Your task to perform on an android device: create a new album in the google photos Image 0: 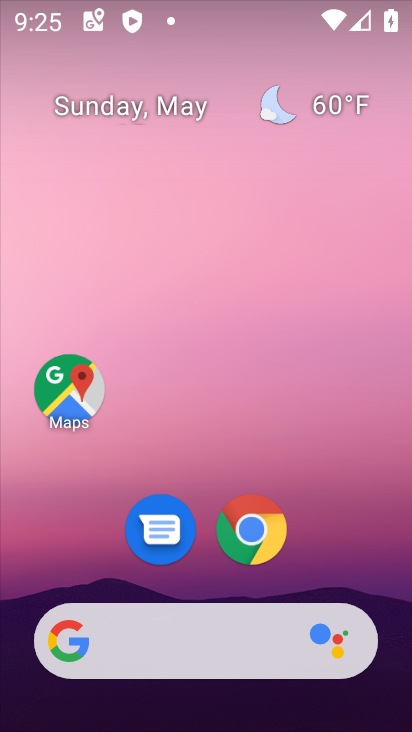
Step 0: drag from (371, 565) to (366, 114)
Your task to perform on an android device: create a new album in the google photos Image 1: 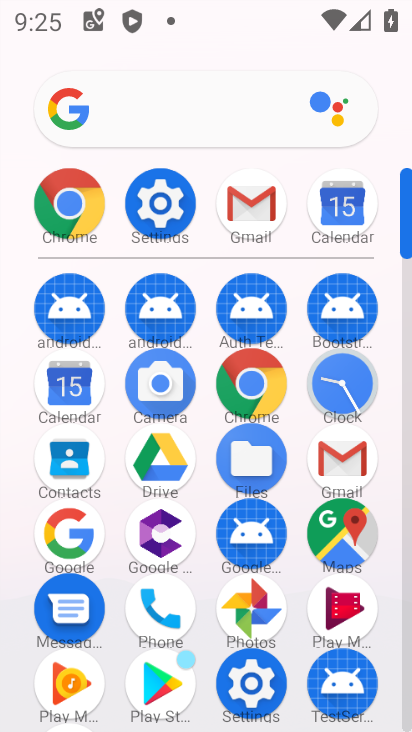
Step 1: click (263, 611)
Your task to perform on an android device: create a new album in the google photos Image 2: 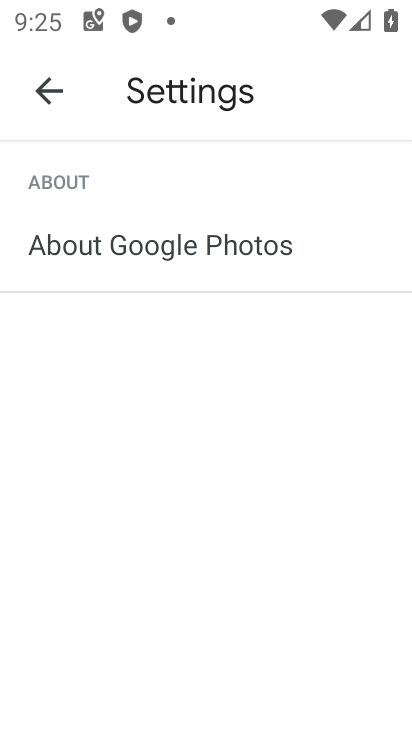
Step 2: click (33, 95)
Your task to perform on an android device: create a new album in the google photos Image 3: 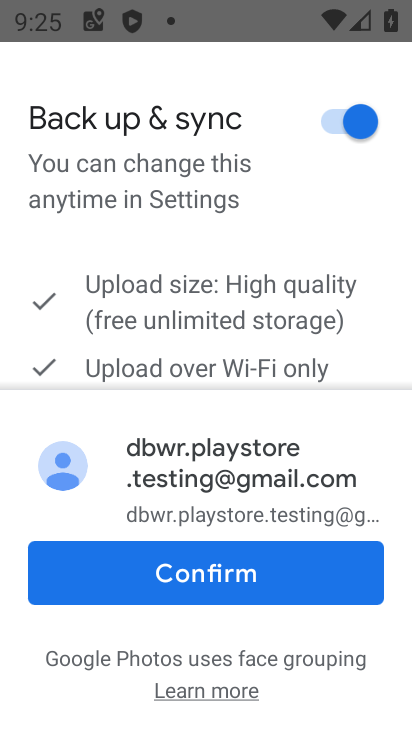
Step 3: click (253, 580)
Your task to perform on an android device: create a new album in the google photos Image 4: 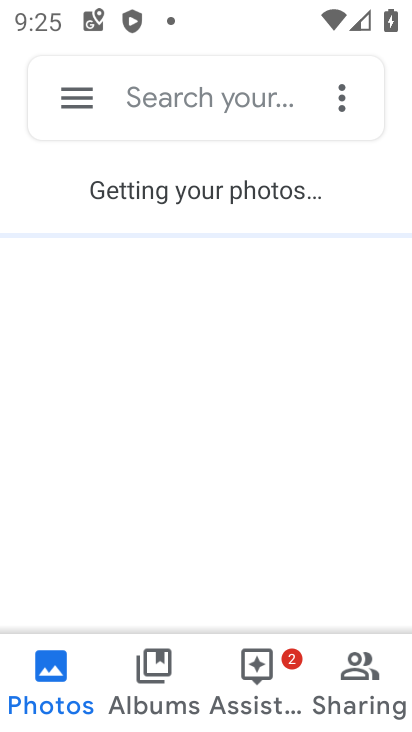
Step 4: click (160, 677)
Your task to perform on an android device: create a new album in the google photos Image 5: 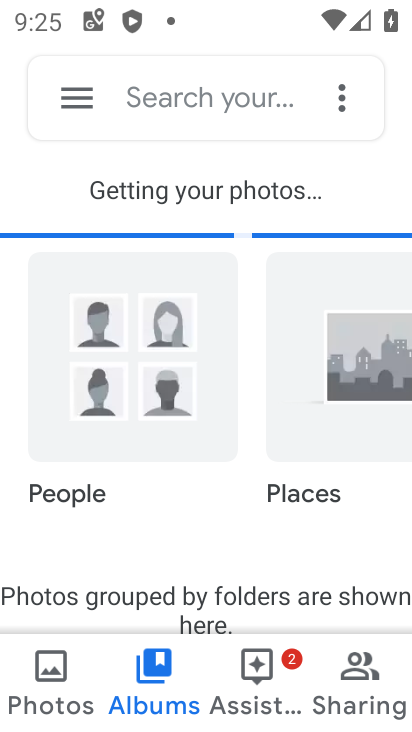
Step 5: click (344, 87)
Your task to perform on an android device: create a new album in the google photos Image 6: 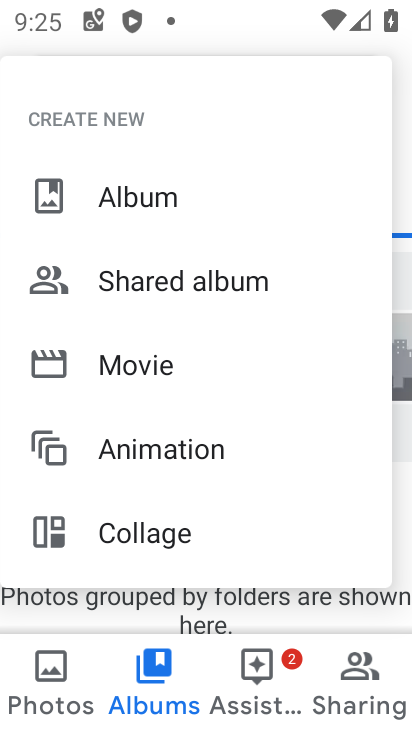
Step 6: click (120, 194)
Your task to perform on an android device: create a new album in the google photos Image 7: 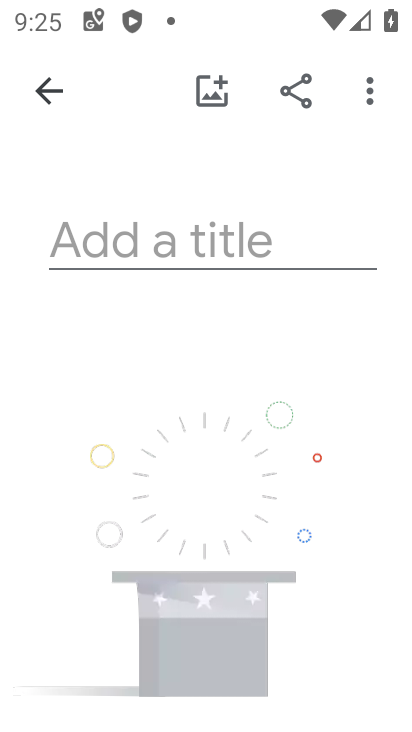
Step 7: click (168, 255)
Your task to perform on an android device: create a new album in the google photos Image 8: 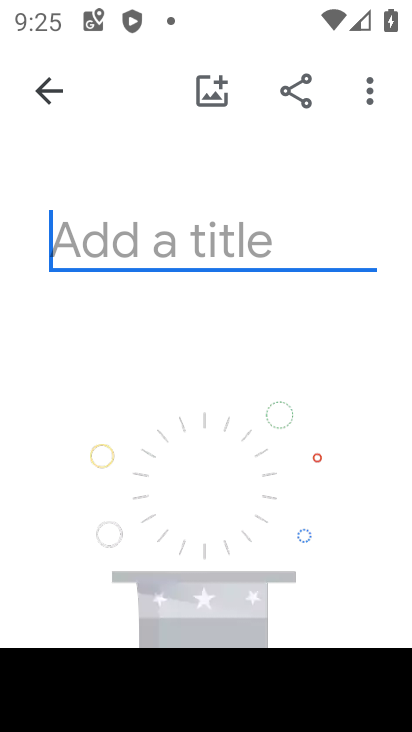
Step 8: type "gg"
Your task to perform on an android device: create a new album in the google photos Image 9: 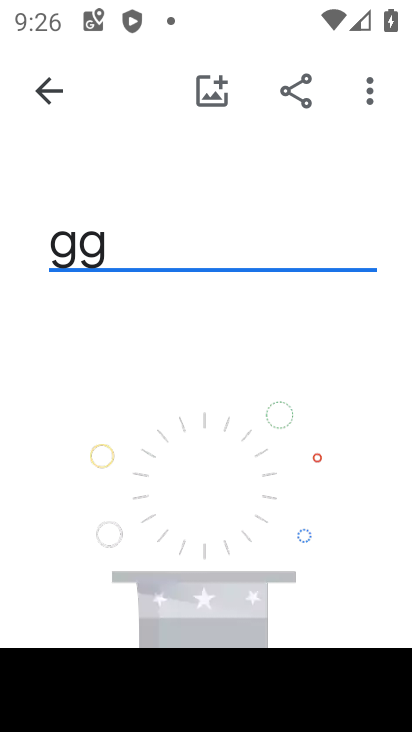
Step 9: drag from (345, 532) to (331, 251)
Your task to perform on an android device: create a new album in the google photos Image 10: 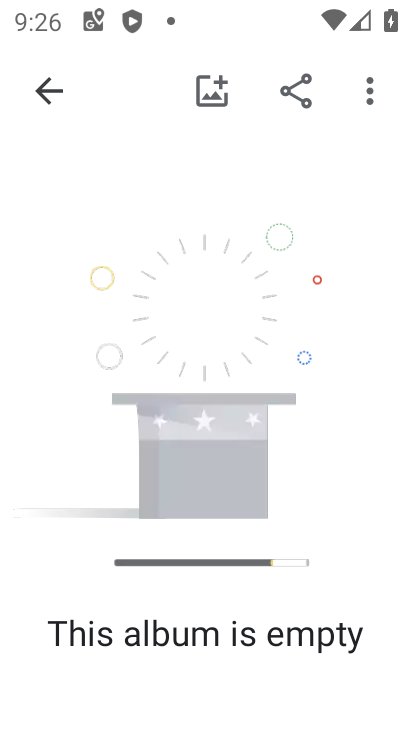
Step 10: click (195, 558)
Your task to perform on an android device: create a new album in the google photos Image 11: 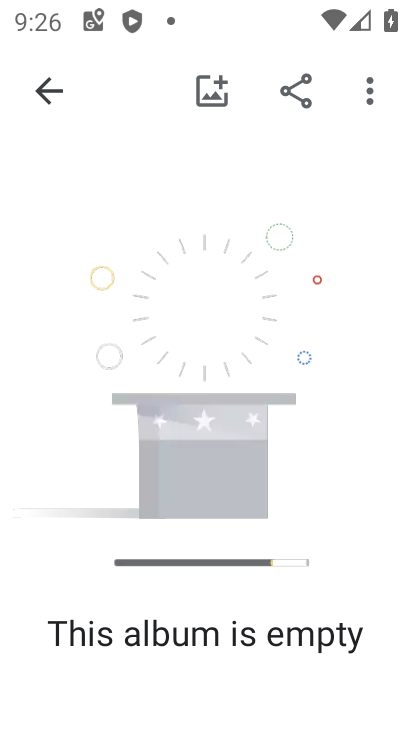
Step 11: click (232, 470)
Your task to perform on an android device: create a new album in the google photos Image 12: 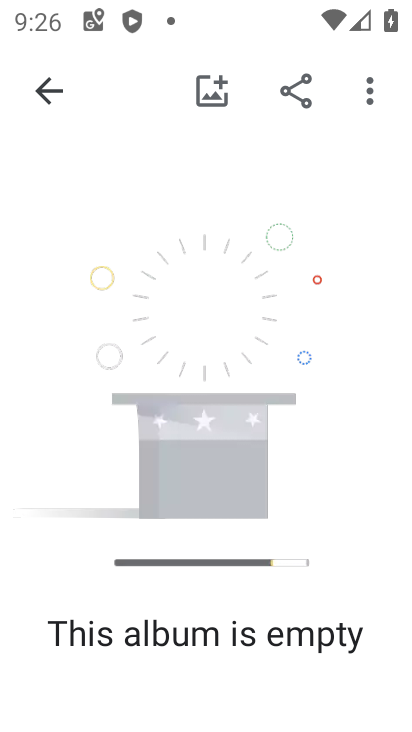
Step 12: click (43, 80)
Your task to perform on an android device: create a new album in the google photos Image 13: 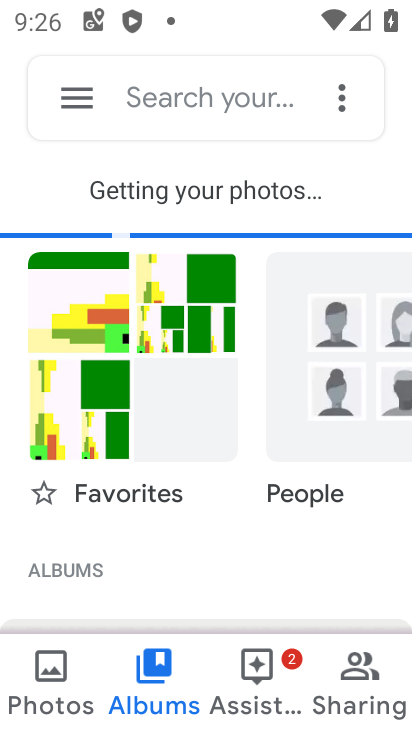
Step 13: drag from (200, 551) to (210, 215)
Your task to perform on an android device: create a new album in the google photos Image 14: 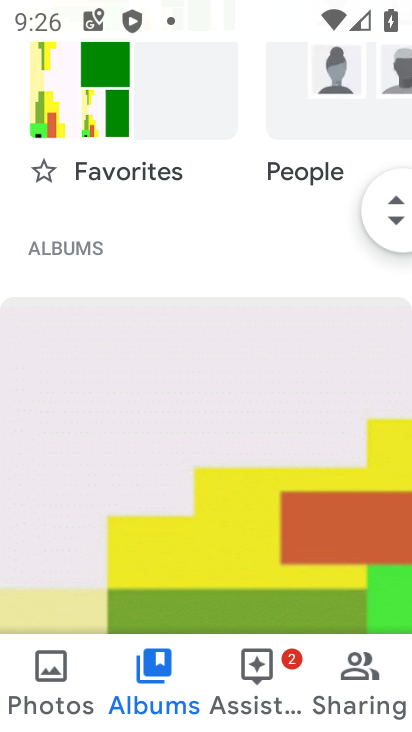
Step 14: drag from (171, 532) to (187, 245)
Your task to perform on an android device: create a new album in the google photos Image 15: 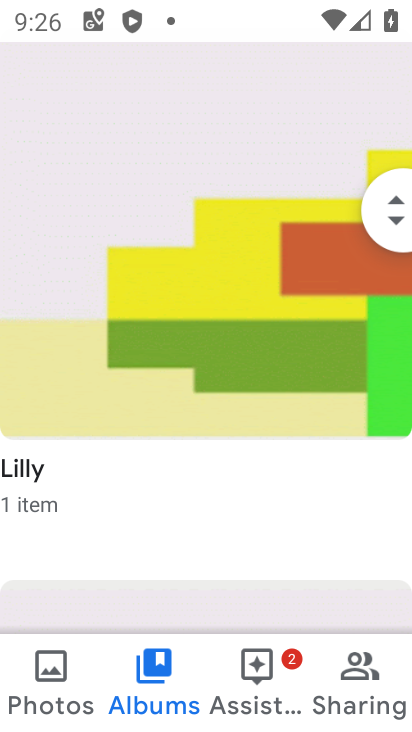
Step 15: drag from (184, 189) to (180, 506)
Your task to perform on an android device: create a new album in the google photos Image 16: 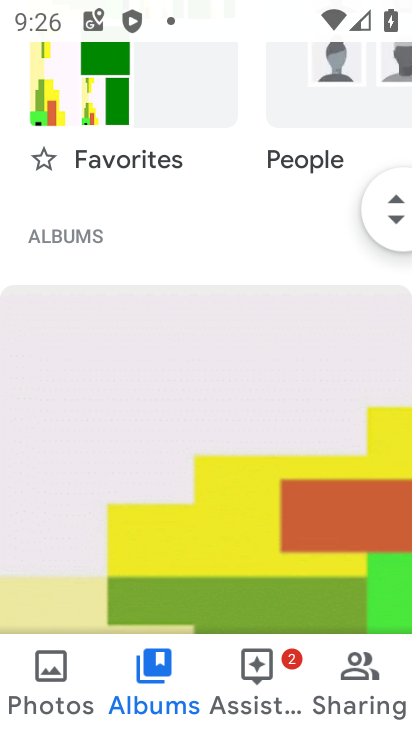
Step 16: drag from (203, 133) to (199, 466)
Your task to perform on an android device: create a new album in the google photos Image 17: 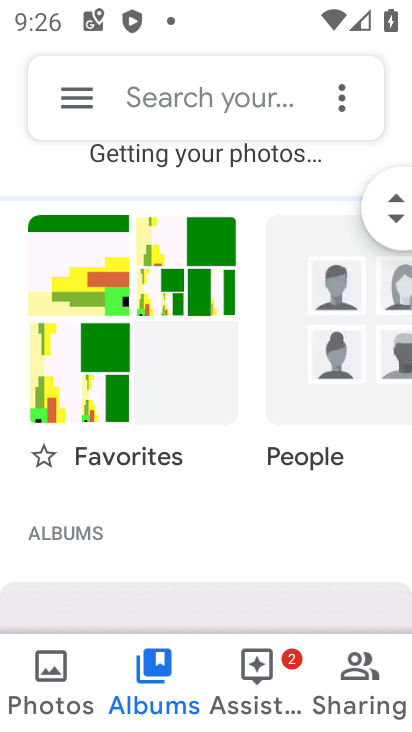
Step 17: click (342, 97)
Your task to perform on an android device: create a new album in the google photos Image 18: 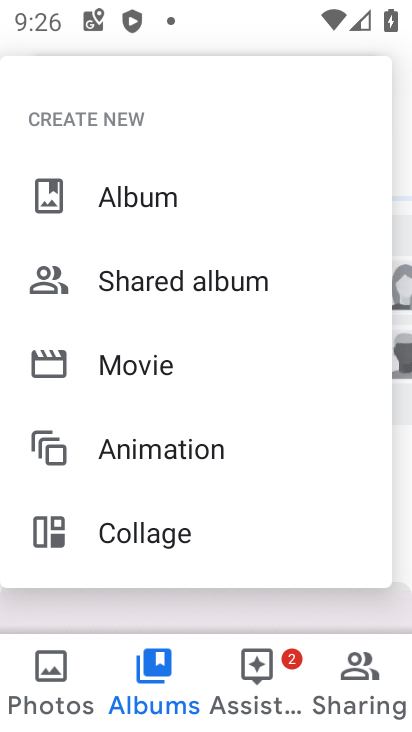
Step 18: click (146, 194)
Your task to perform on an android device: create a new album in the google photos Image 19: 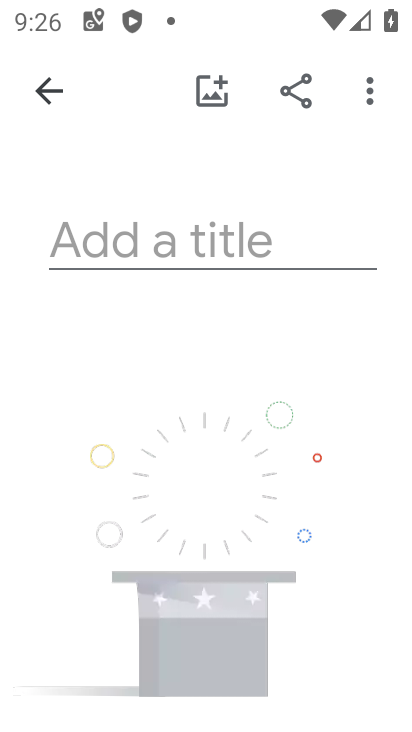
Step 19: click (222, 236)
Your task to perform on an android device: create a new album in the google photos Image 20: 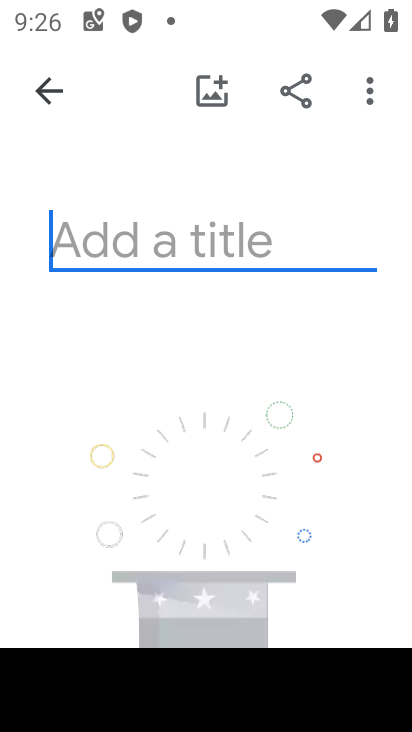
Step 20: type "hh"
Your task to perform on an android device: create a new album in the google photos Image 21: 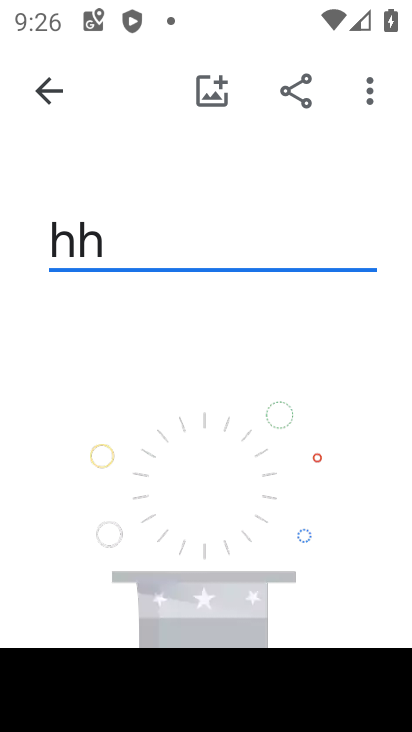
Step 21: task complete